Your task to perform on an android device: What's the weather going to be this weekend? Image 0: 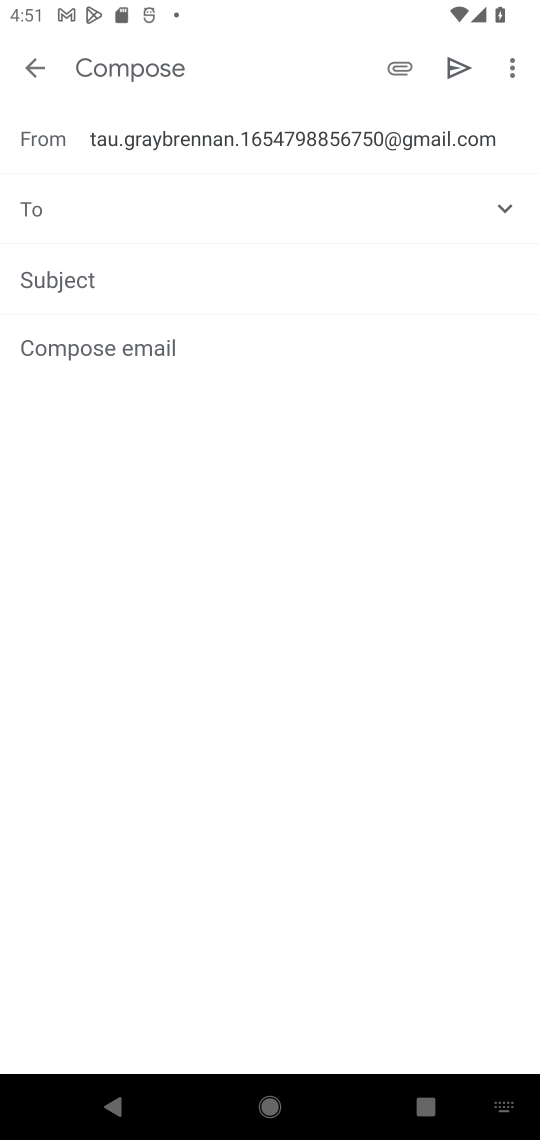
Step 0: press home button
Your task to perform on an android device: What's the weather going to be this weekend? Image 1: 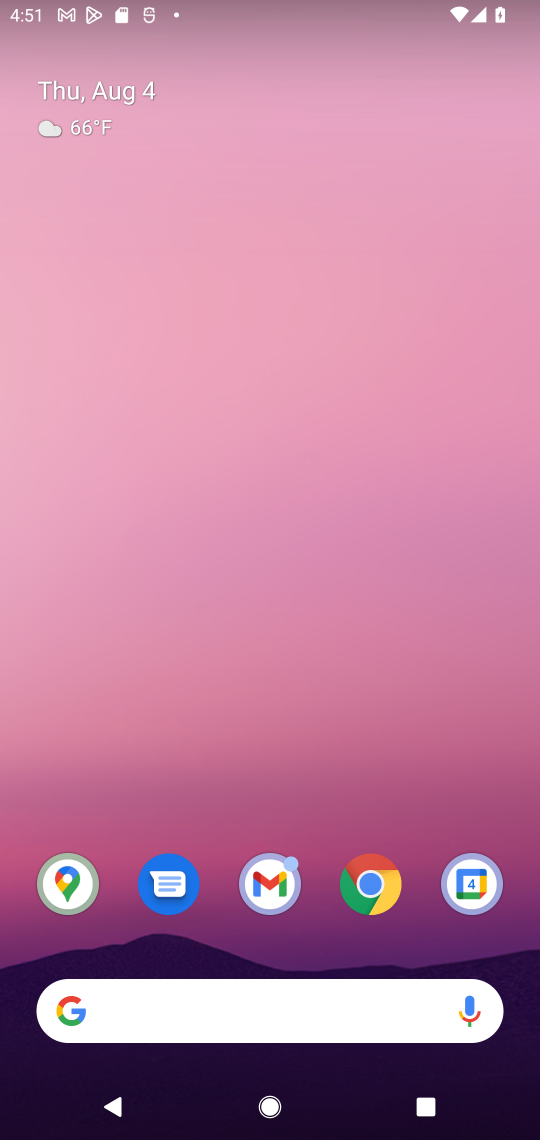
Step 1: click (301, 1004)
Your task to perform on an android device: What's the weather going to be this weekend? Image 2: 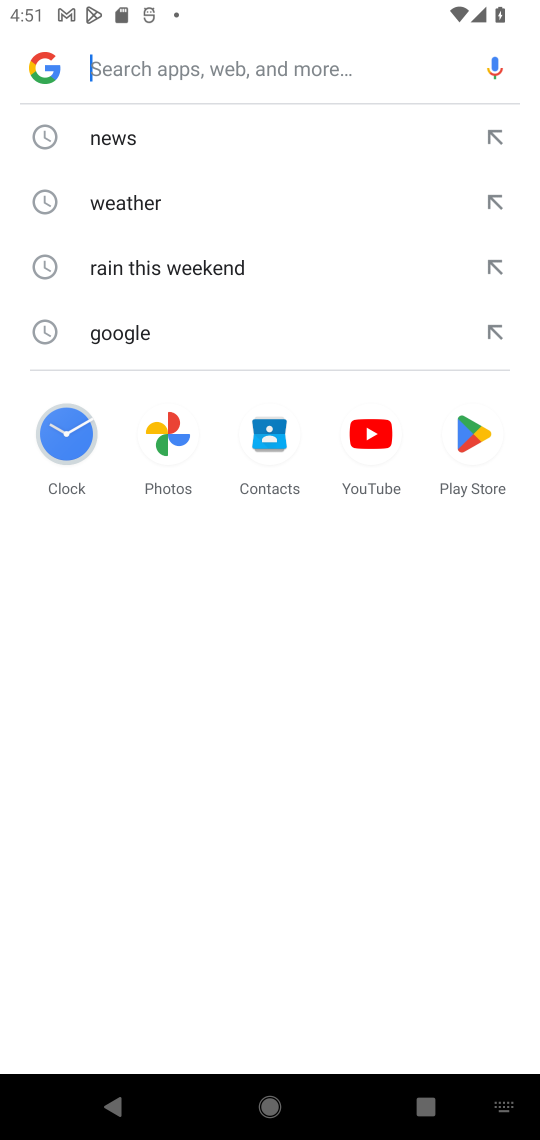
Step 2: click (307, 195)
Your task to perform on an android device: What's the weather going to be this weekend? Image 3: 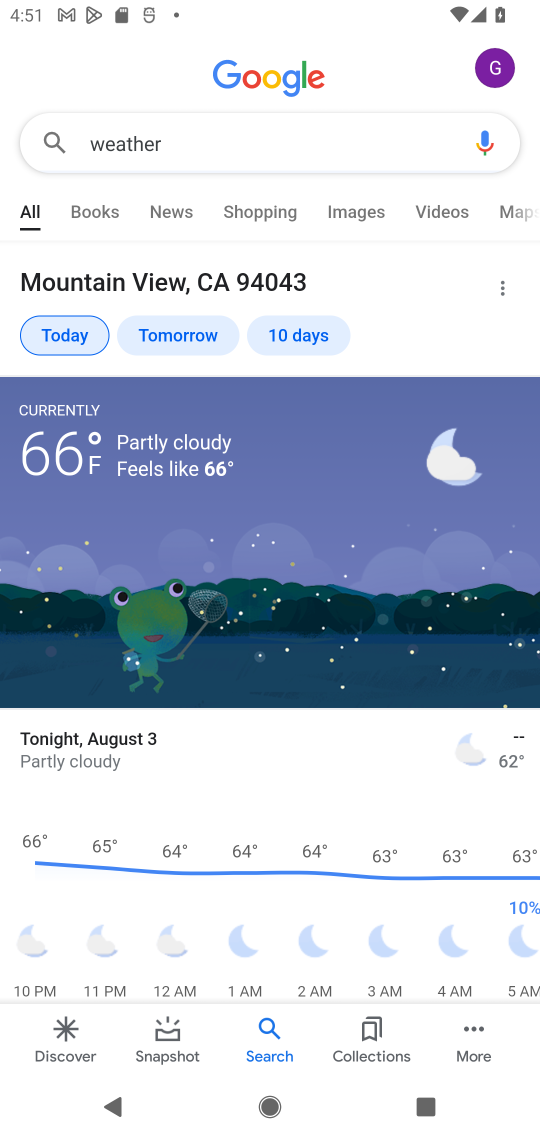
Step 3: task complete